Your task to perform on an android device: check the backup settings in the google photos Image 0: 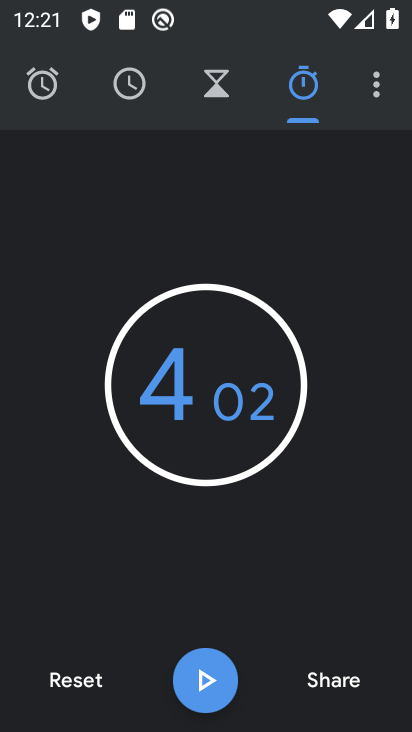
Step 0: press home button
Your task to perform on an android device: check the backup settings in the google photos Image 1: 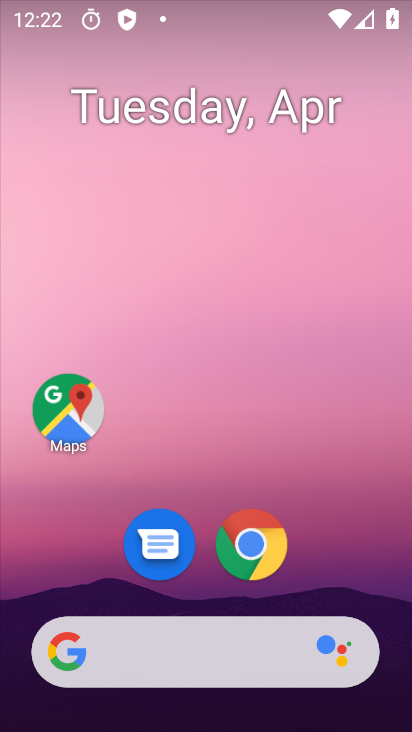
Step 1: drag from (349, 558) to (337, 0)
Your task to perform on an android device: check the backup settings in the google photos Image 2: 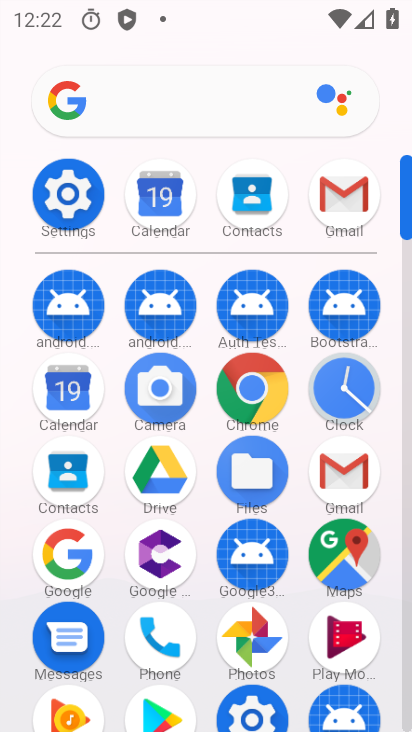
Step 2: click (260, 633)
Your task to perform on an android device: check the backup settings in the google photos Image 3: 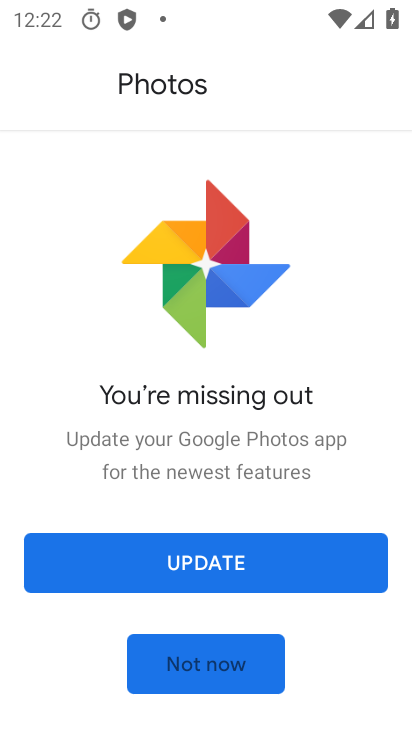
Step 3: click (216, 567)
Your task to perform on an android device: check the backup settings in the google photos Image 4: 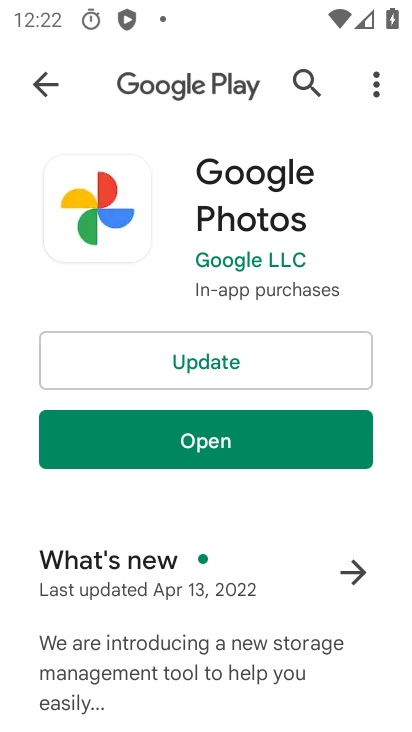
Step 4: click (231, 439)
Your task to perform on an android device: check the backup settings in the google photos Image 5: 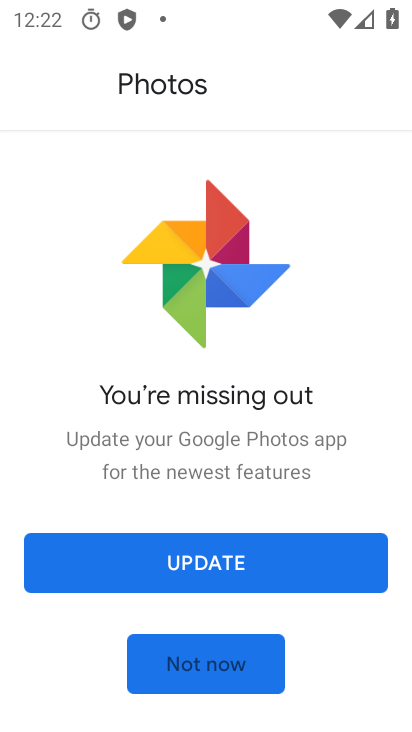
Step 5: click (225, 656)
Your task to perform on an android device: check the backup settings in the google photos Image 6: 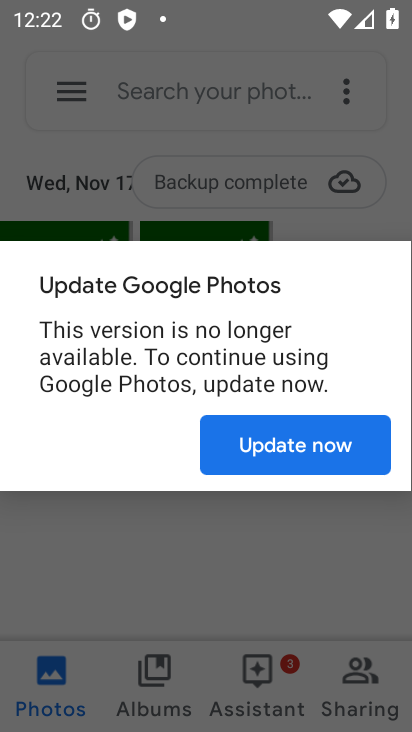
Step 6: click (309, 442)
Your task to perform on an android device: check the backup settings in the google photos Image 7: 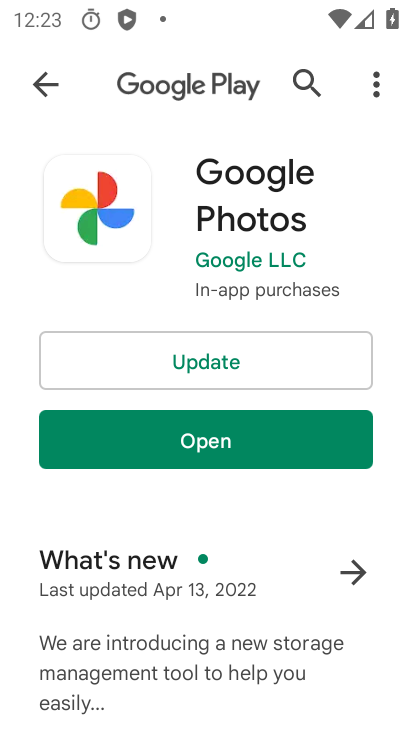
Step 7: click (257, 441)
Your task to perform on an android device: check the backup settings in the google photos Image 8: 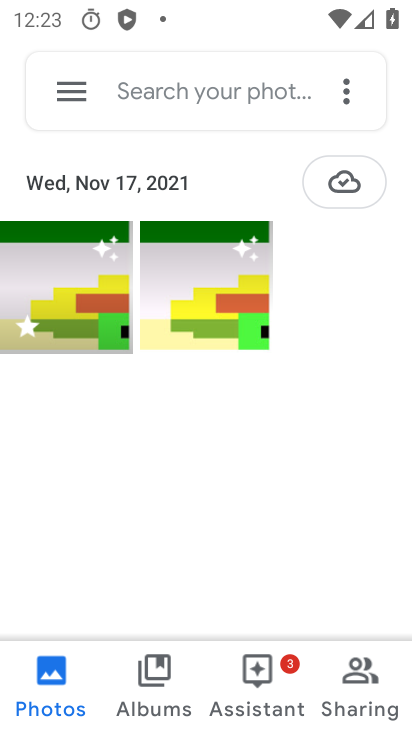
Step 8: click (78, 95)
Your task to perform on an android device: check the backup settings in the google photos Image 9: 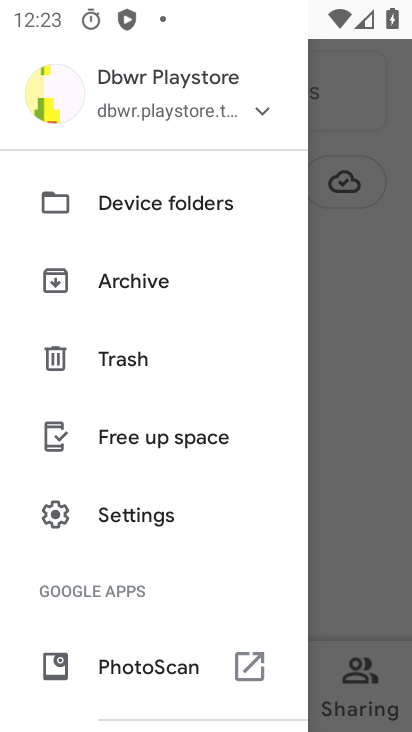
Step 9: click (142, 515)
Your task to perform on an android device: check the backup settings in the google photos Image 10: 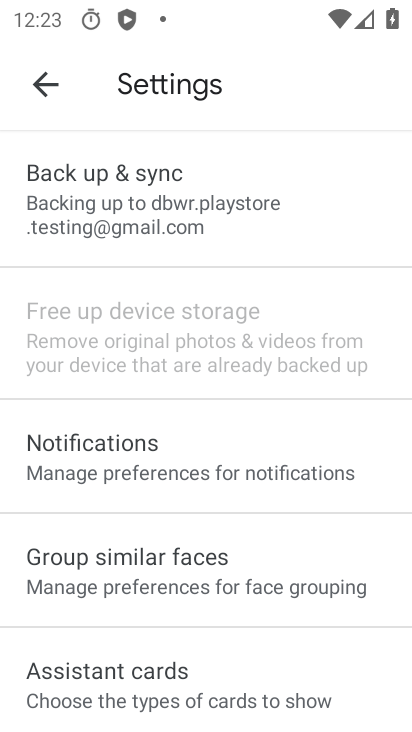
Step 10: click (139, 199)
Your task to perform on an android device: check the backup settings in the google photos Image 11: 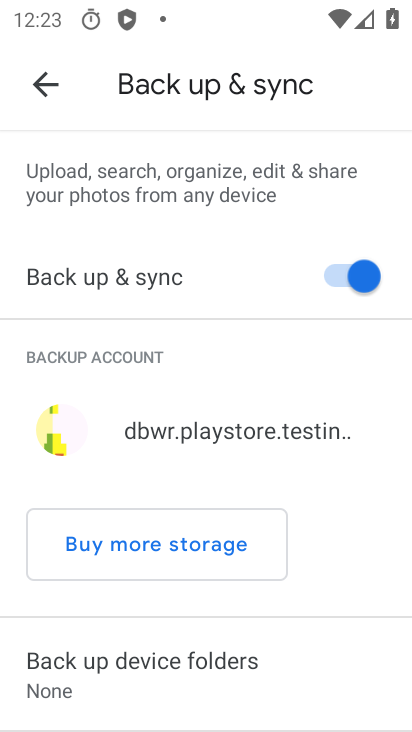
Step 11: task complete